Your task to perform on an android device: turn off improve location accuracy Image 0: 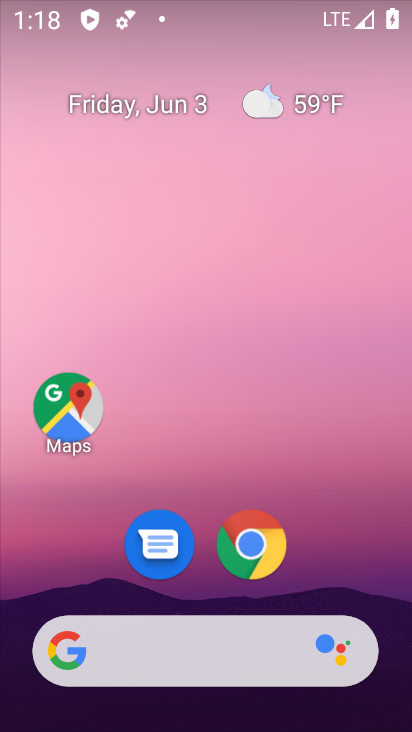
Step 0: drag from (220, 600) to (164, 120)
Your task to perform on an android device: turn off improve location accuracy Image 1: 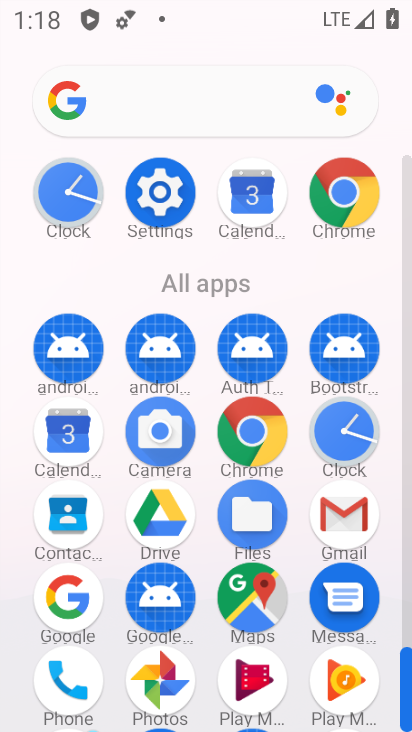
Step 1: click (154, 187)
Your task to perform on an android device: turn off improve location accuracy Image 2: 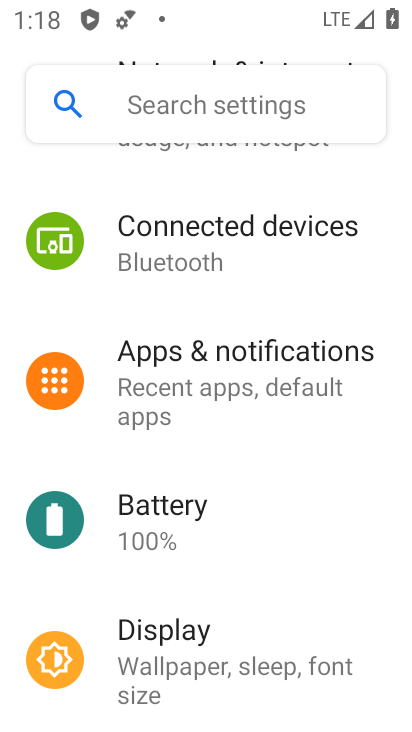
Step 2: drag from (110, 507) to (81, 72)
Your task to perform on an android device: turn off improve location accuracy Image 3: 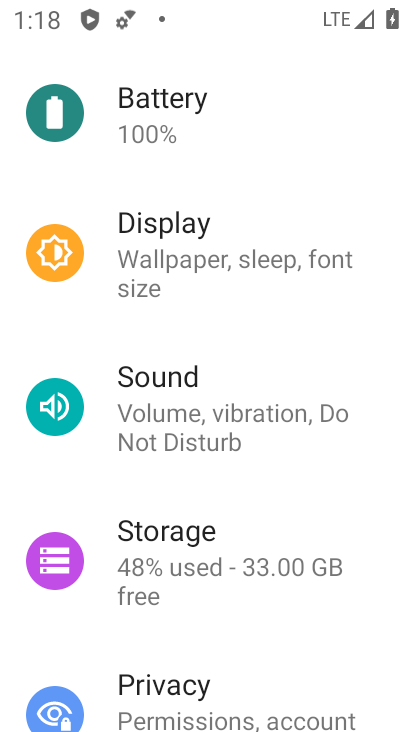
Step 3: drag from (215, 647) to (116, 145)
Your task to perform on an android device: turn off improve location accuracy Image 4: 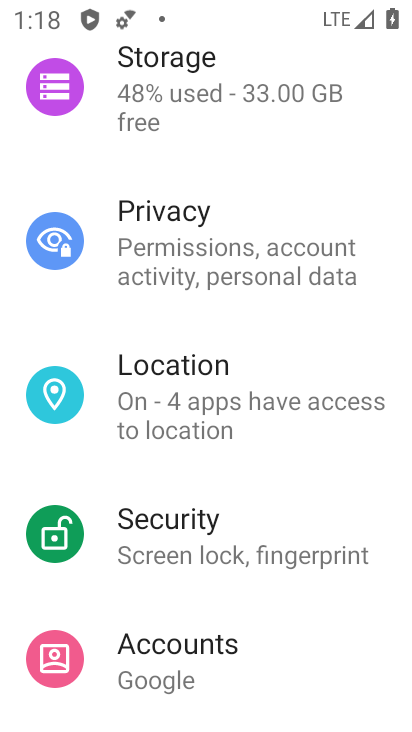
Step 4: click (183, 402)
Your task to perform on an android device: turn off improve location accuracy Image 5: 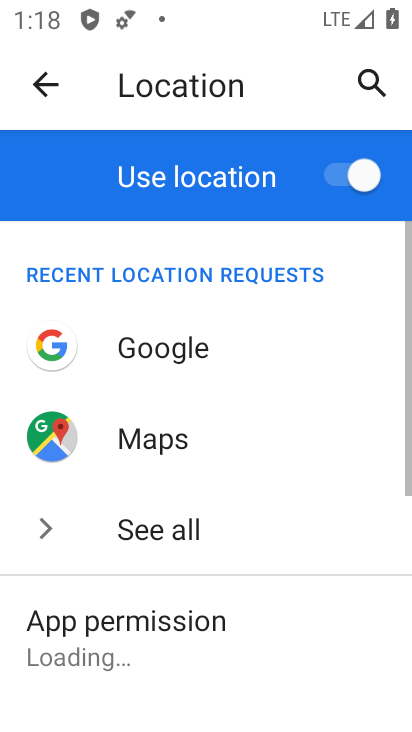
Step 5: drag from (180, 682) to (109, 207)
Your task to perform on an android device: turn off improve location accuracy Image 6: 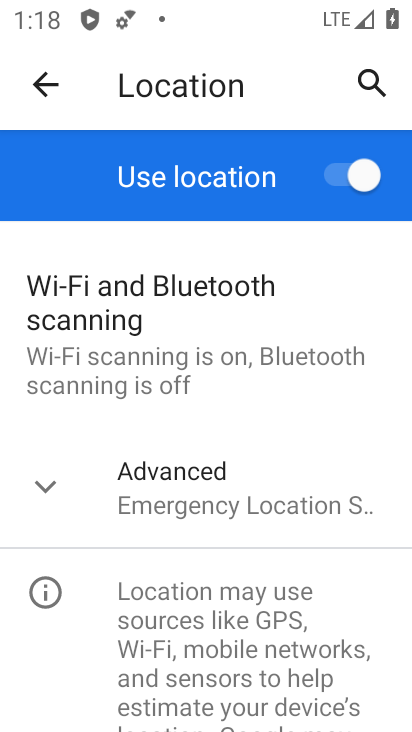
Step 6: click (116, 480)
Your task to perform on an android device: turn off improve location accuracy Image 7: 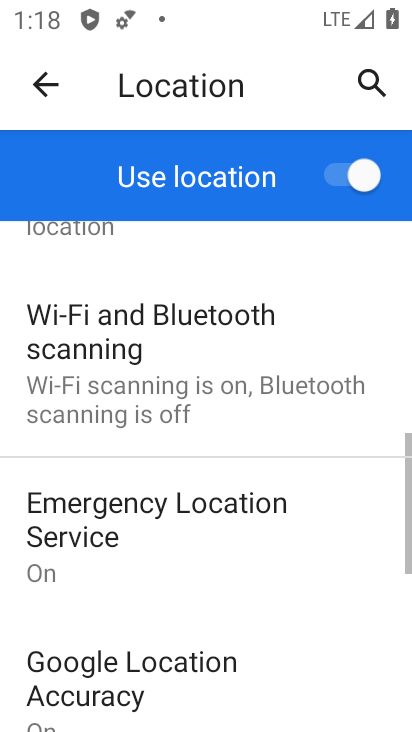
Step 7: click (218, 660)
Your task to perform on an android device: turn off improve location accuracy Image 8: 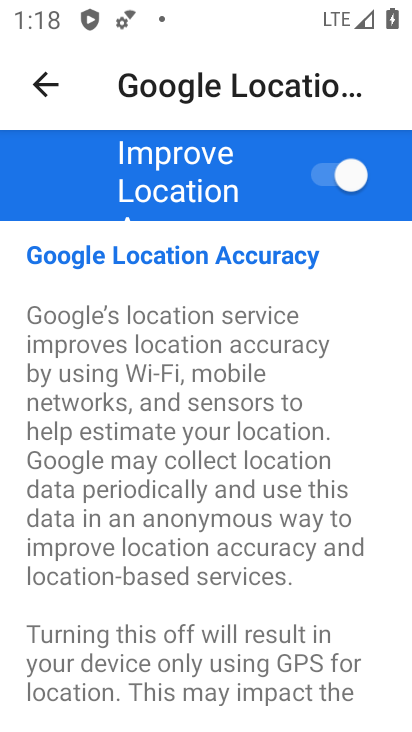
Step 8: click (339, 186)
Your task to perform on an android device: turn off improve location accuracy Image 9: 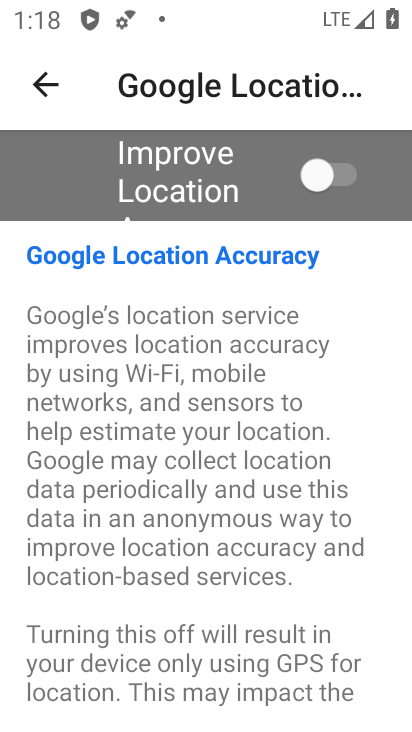
Step 9: task complete